Your task to perform on an android device: Add usb-a to usb-b to the cart on newegg Image 0: 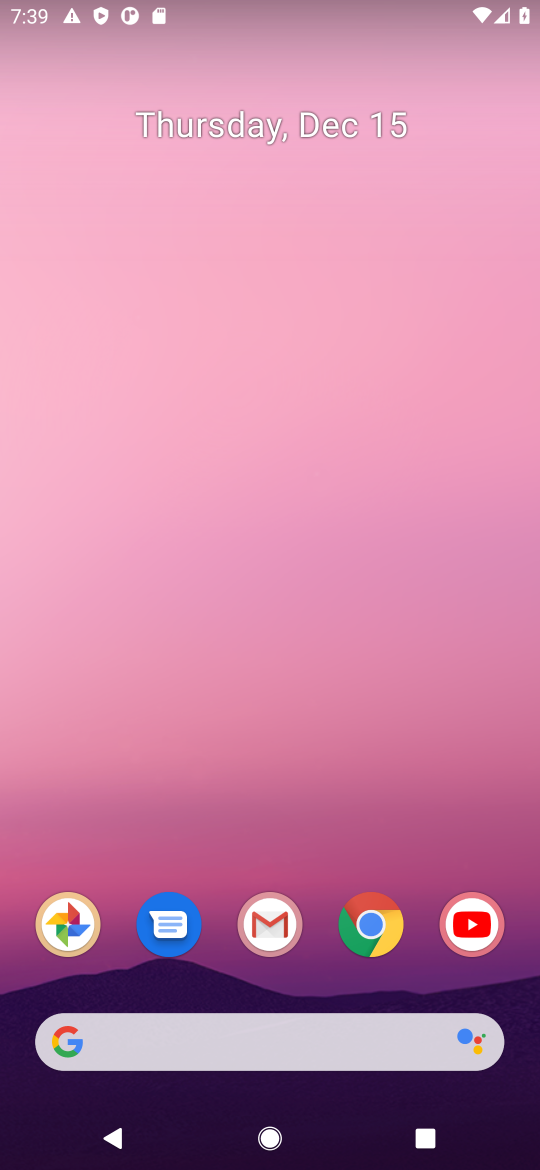
Step 0: click (383, 933)
Your task to perform on an android device: Add usb-a to usb-b to the cart on newegg Image 1: 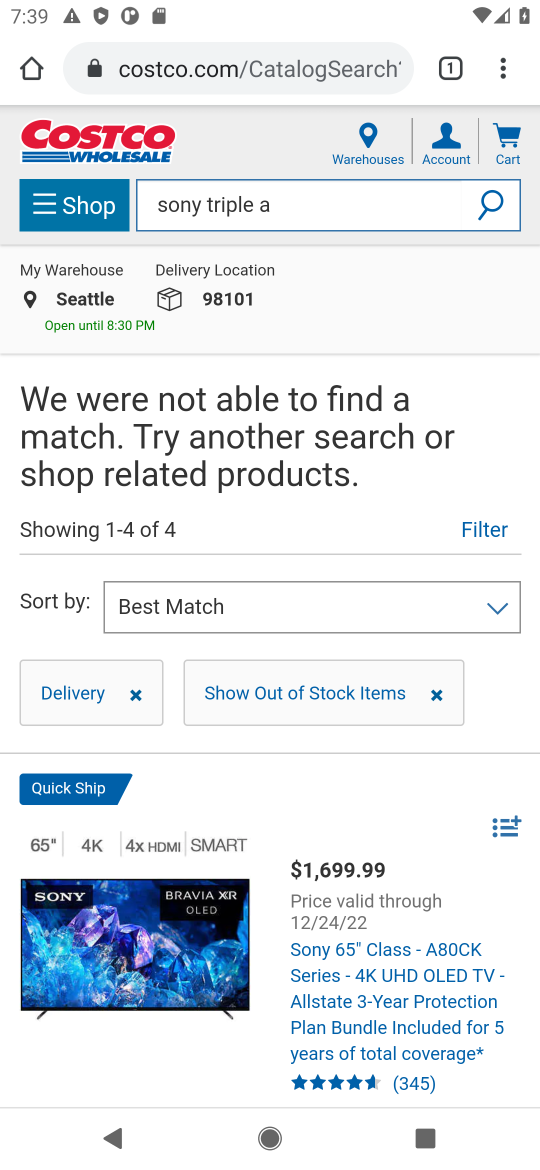
Step 1: click (269, 67)
Your task to perform on an android device: Add usb-a to usb-b to the cart on newegg Image 2: 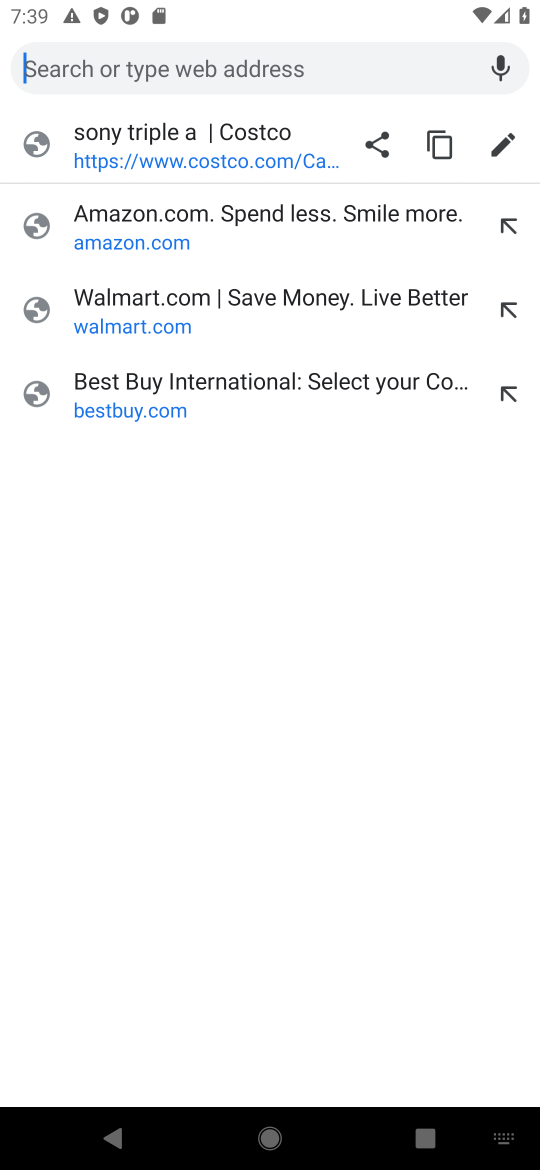
Step 2: click (269, 67)
Your task to perform on an android device: Add usb-a to usb-b to the cart on newegg Image 3: 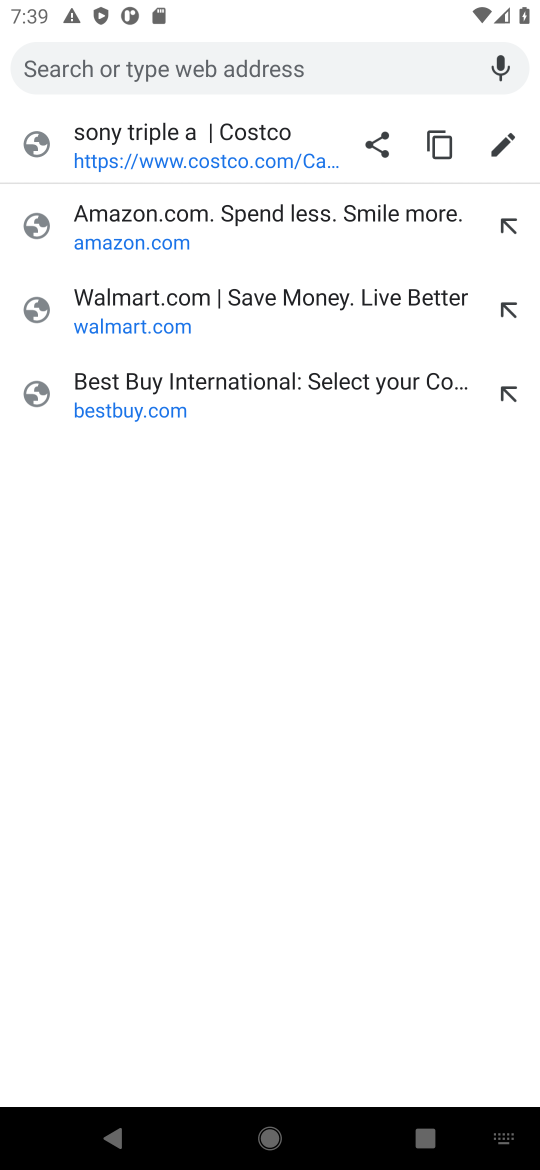
Step 3: type "newegg"
Your task to perform on an android device: Add usb-a to usb-b to the cart on newegg Image 4: 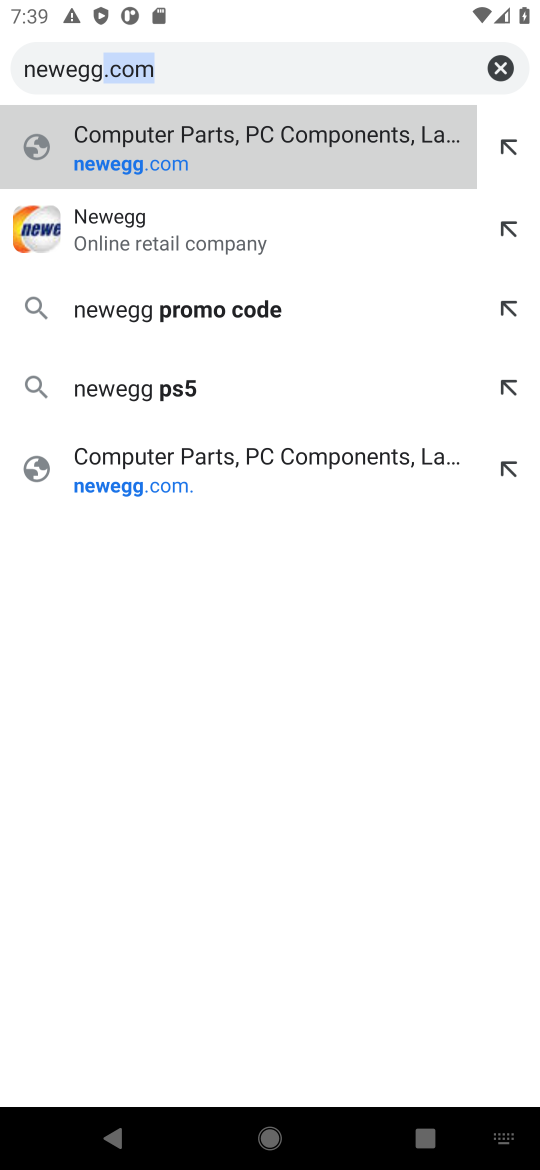
Step 4: click (203, 237)
Your task to perform on an android device: Add usb-a to usb-b to the cart on newegg Image 5: 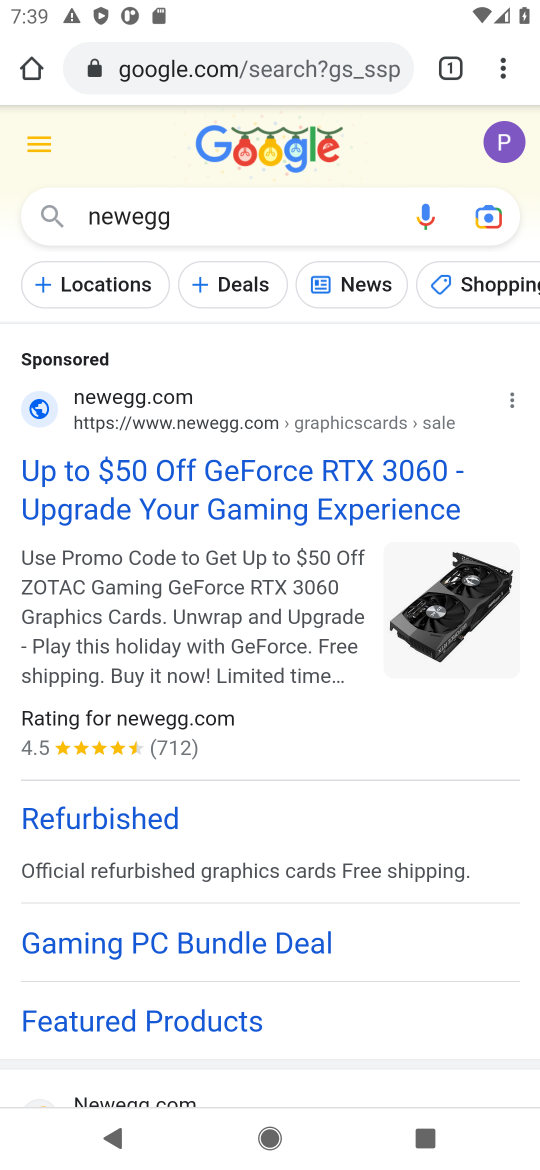
Step 5: click (69, 493)
Your task to perform on an android device: Add usb-a to usb-b to the cart on newegg Image 6: 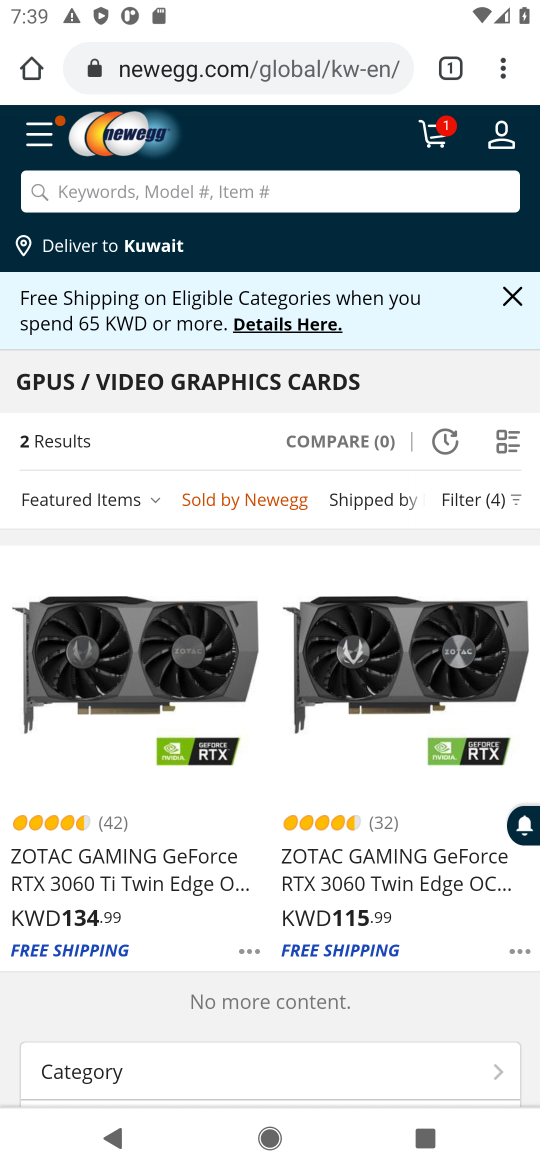
Step 6: click (265, 185)
Your task to perform on an android device: Add usb-a to usb-b to the cart on newegg Image 7: 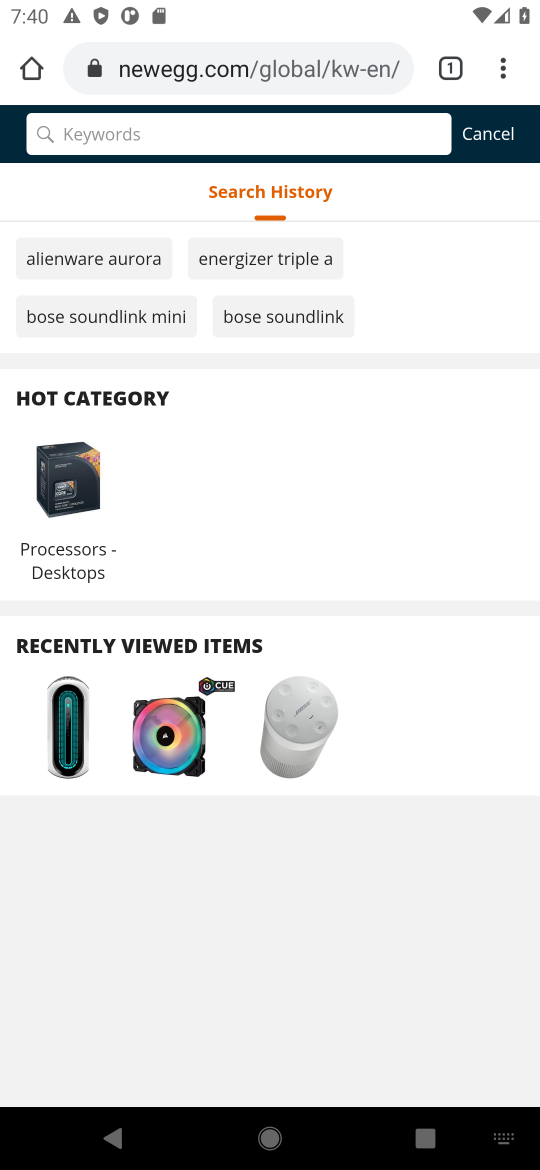
Step 7: type " usb-a to usb-b"
Your task to perform on an android device: Add usb-a to usb-b to the cart on newegg Image 8: 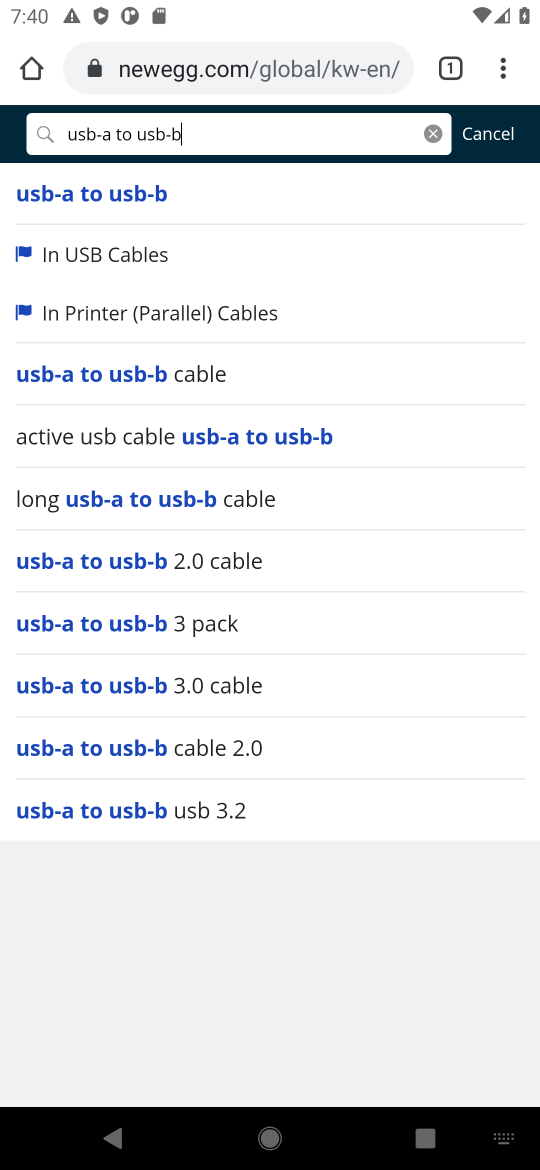
Step 8: click (135, 182)
Your task to perform on an android device: Add usb-a to usb-b to the cart on newegg Image 9: 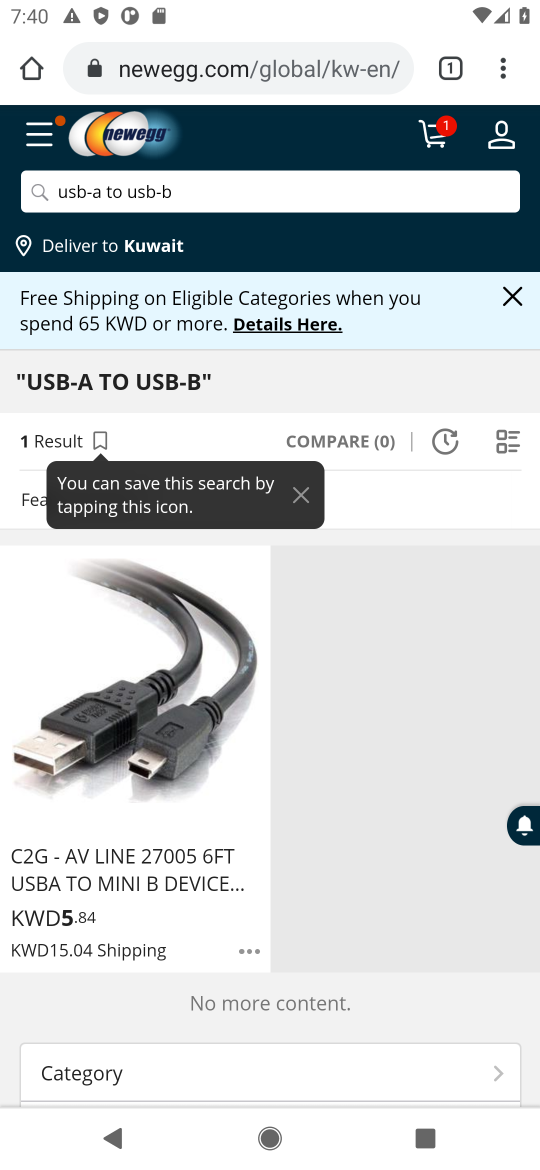
Step 9: click (81, 735)
Your task to perform on an android device: Add usb-a to usb-b to the cart on newegg Image 10: 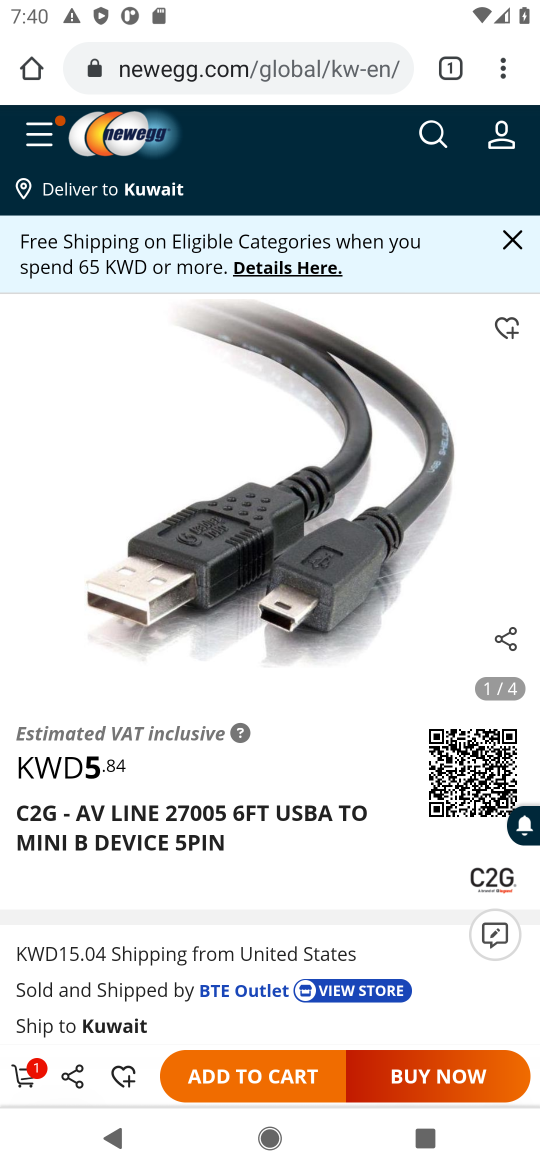
Step 10: click (255, 1058)
Your task to perform on an android device: Add usb-a to usb-b to the cart on newegg Image 11: 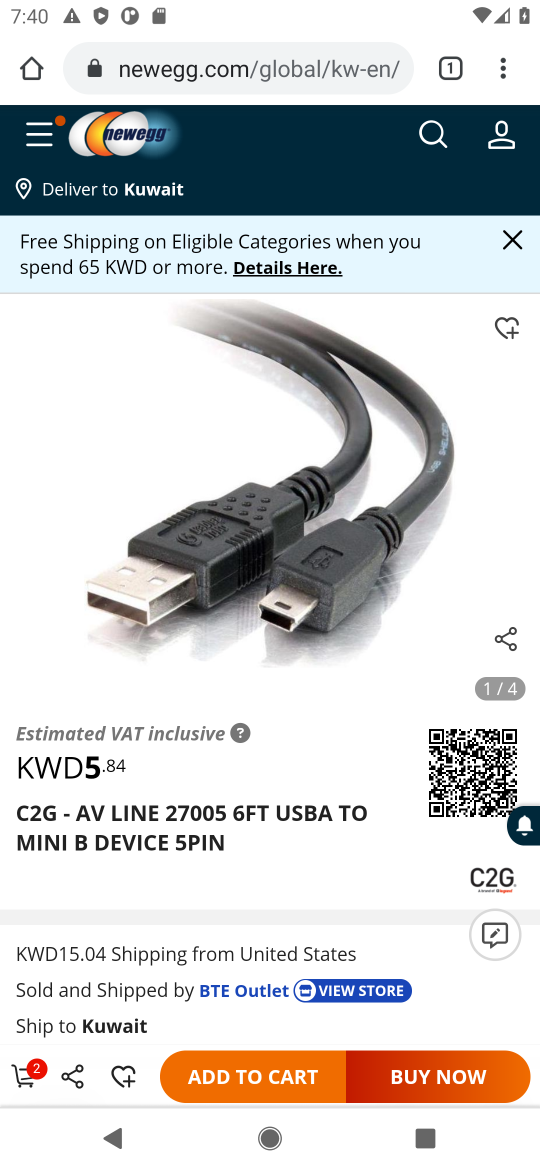
Step 11: click (255, 1058)
Your task to perform on an android device: Add usb-a to usb-b to the cart on newegg Image 12: 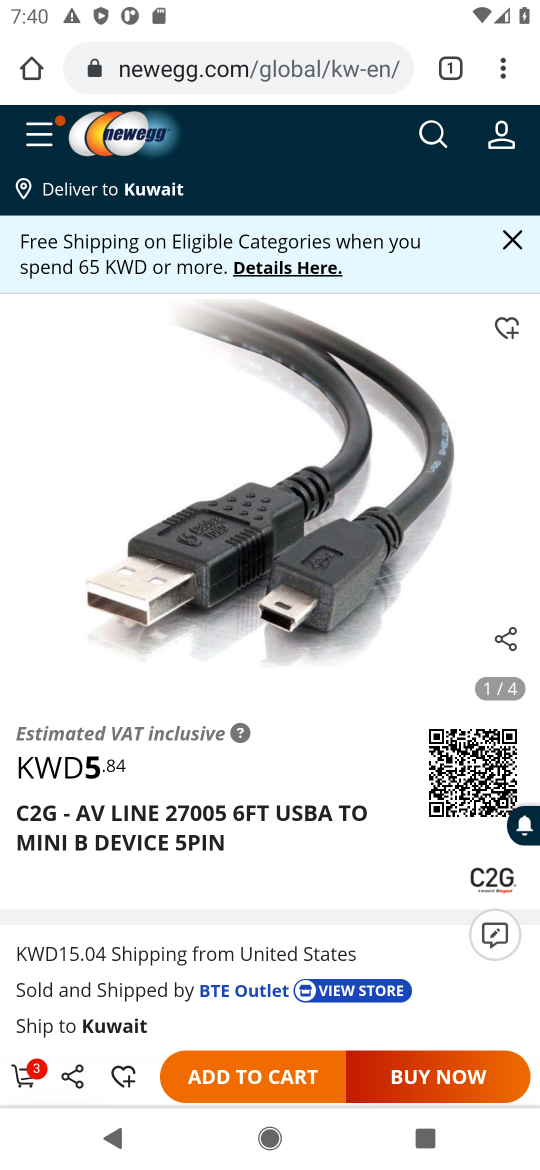
Step 12: task complete